Your task to perform on an android device: turn notification dots off Image 0: 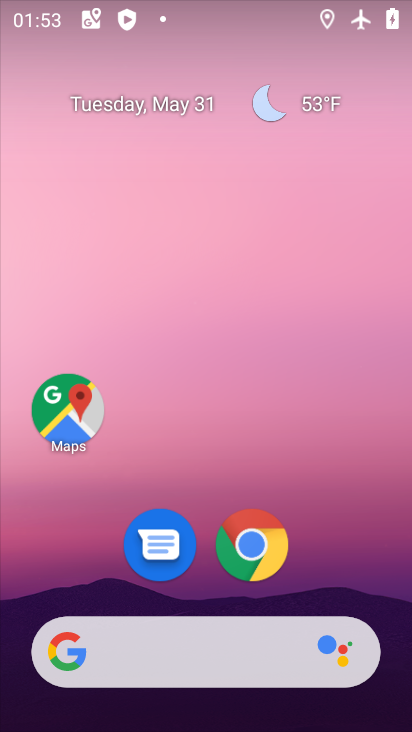
Step 0: drag from (366, 578) to (314, 169)
Your task to perform on an android device: turn notification dots off Image 1: 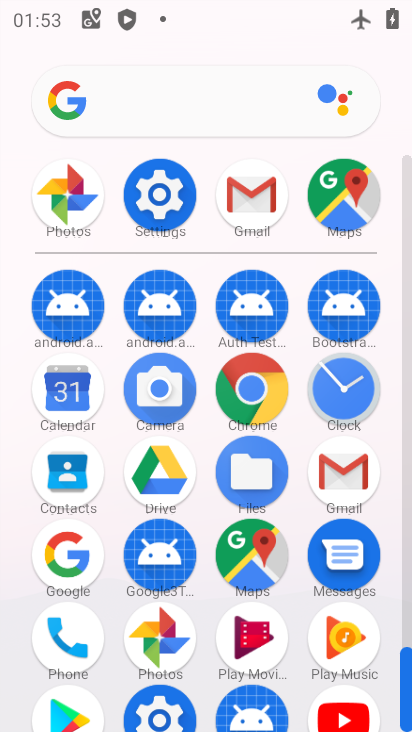
Step 1: click (173, 198)
Your task to perform on an android device: turn notification dots off Image 2: 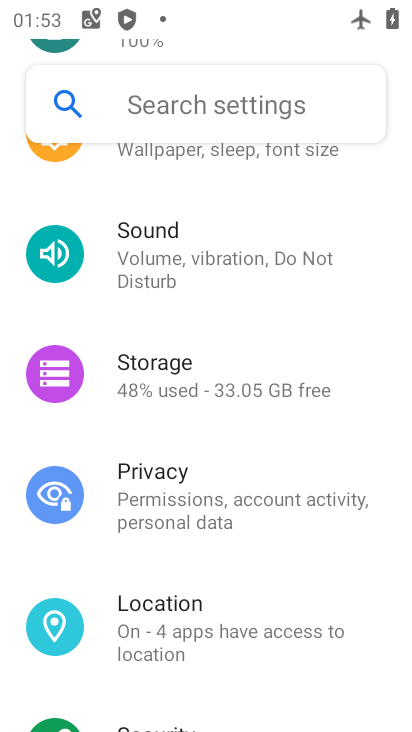
Step 2: drag from (173, 198) to (217, 481)
Your task to perform on an android device: turn notification dots off Image 3: 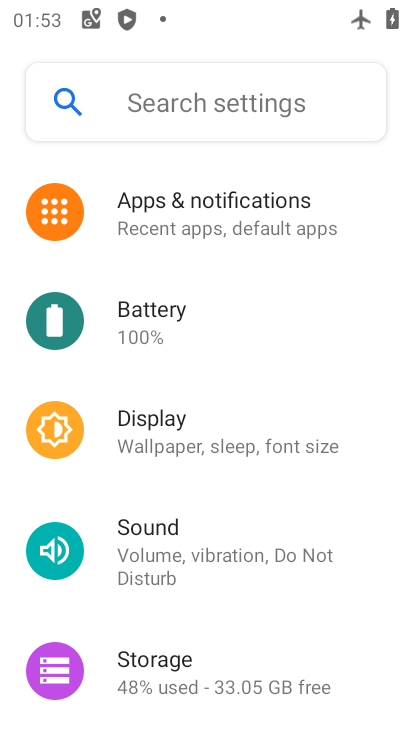
Step 3: click (228, 241)
Your task to perform on an android device: turn notification dots off Image 4: 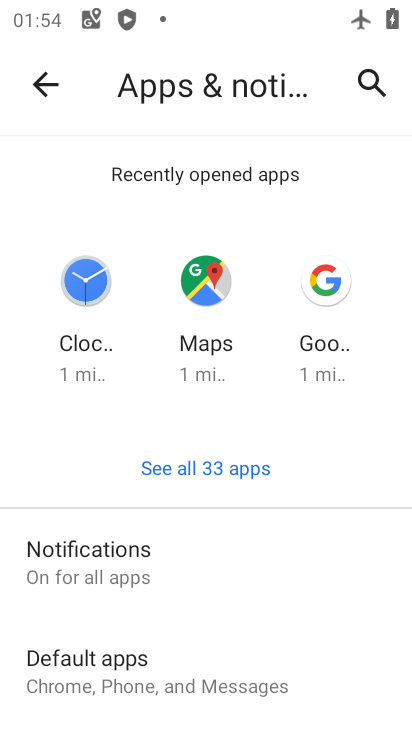
Step 4: click (234, 567)
Your task to perform on an android device: turn notification dots off Image 5: 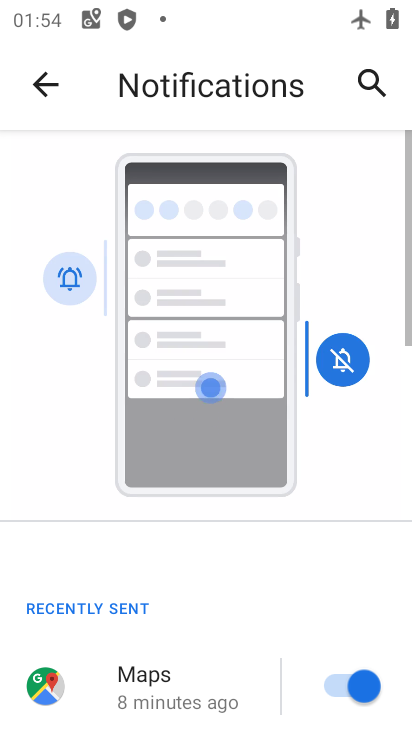
Step 5: drag from (239, 618) to (253, 60)
Your task to perform on an android device: turn notification dots off Image 6: 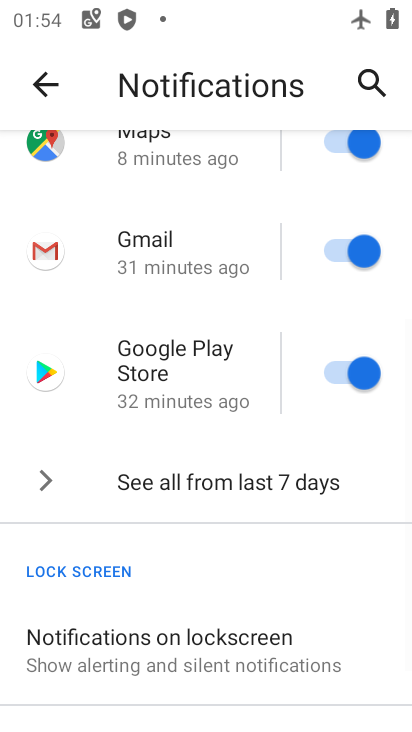
Step 6: drag from (252, 606) to (262, 104)
Your task to perform on an android device: turn notification dots off Image 7: 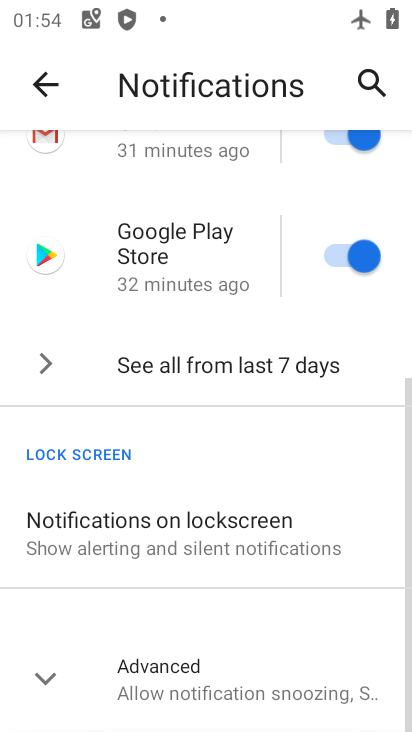
Step 7: click (250, 691)
Your task to perform on an android device: turn notification dots off Image 8: 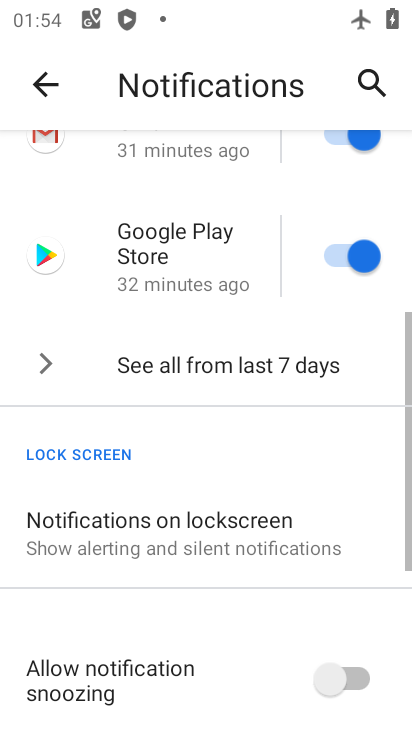
Step 8: task complete